Your task to perform on an android device: check android version Image 0: 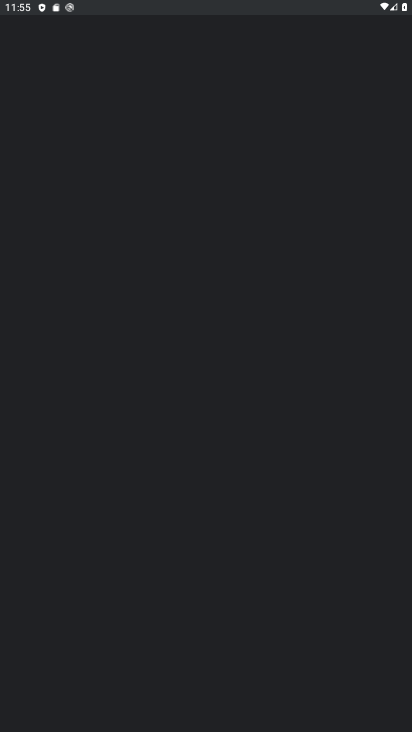
Step 0: drag from (272, 667) to (262, 165)
Your task to perform on an android device: check android version Image 1: 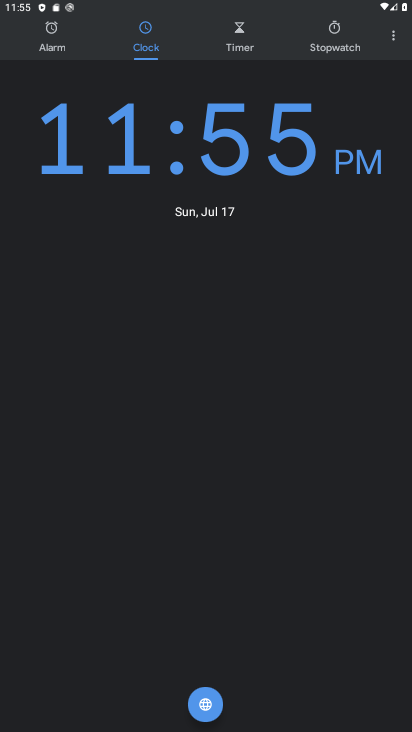
Step 1: press back button
Your task to perform on an android device: check android version Image 2: 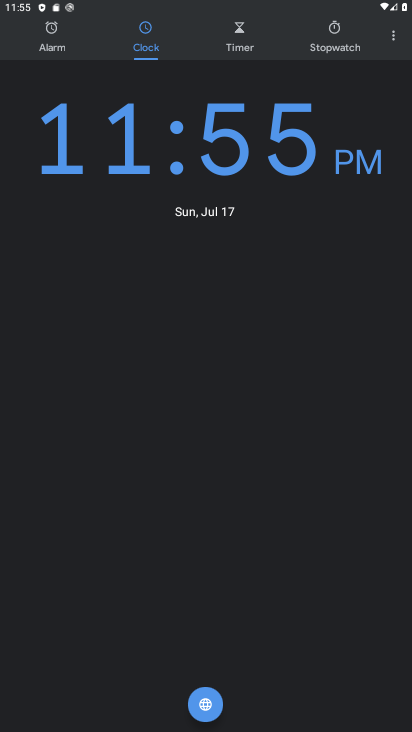
Step 2: press back button
Your task to perform on an android device: check android version Image 3: 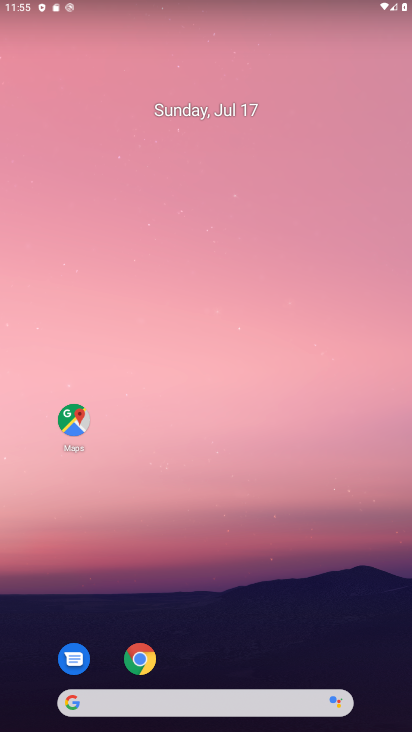
Step 3: drag from (318, 679) to (242, 14)
Your task to perform on an android device: check android version Image 4: 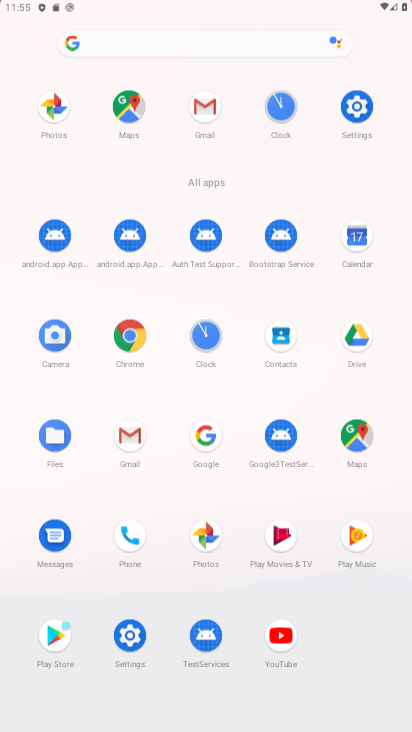
Step 4: drag from (285, 632) to (221, 129)
Your task to perform on an android device: check android version Image 5: 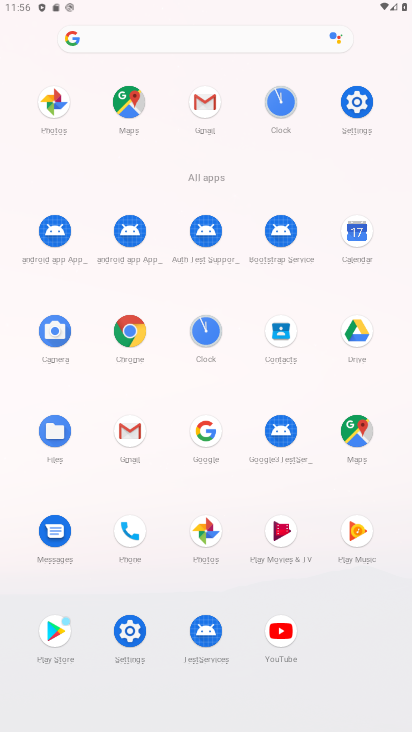
Step 5: click (126, 629)
Your task to perform on an android device: check android version Image 6: 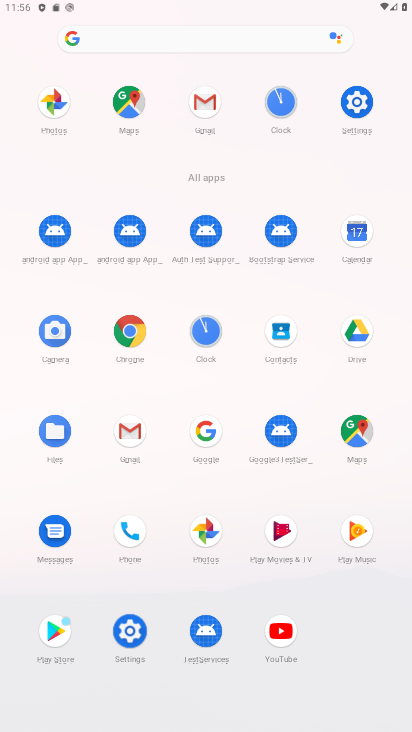
Step 6: click (134, 621)
Your task to perform on an android device: check android version Image 7: 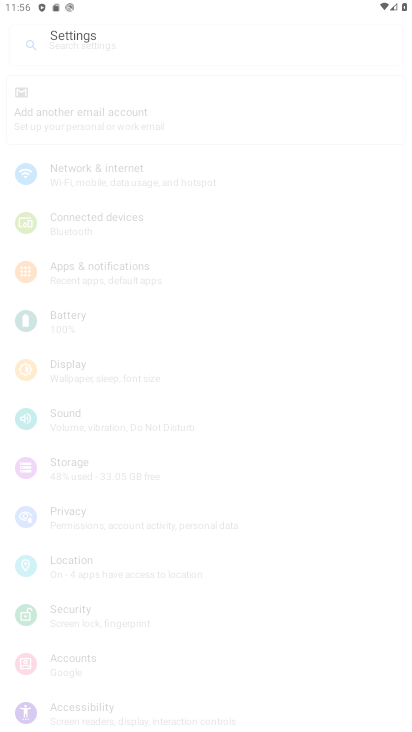
Step 7: click (123, 636)
Your task to perform on an android device: check android version Image 8: 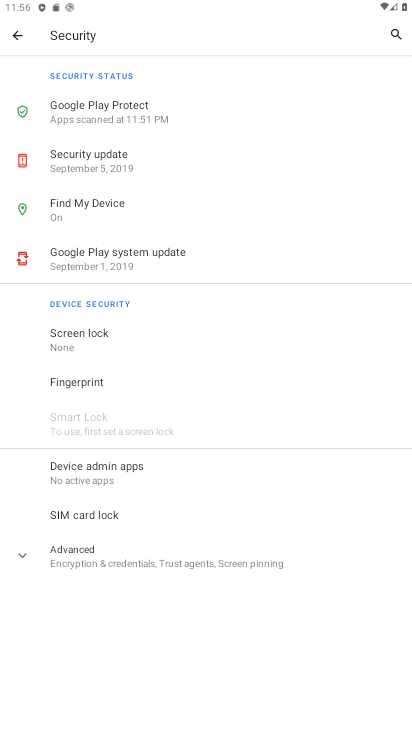
Step 8: click (13, 35)
Your task to perform on an android device: check android version Image 9: 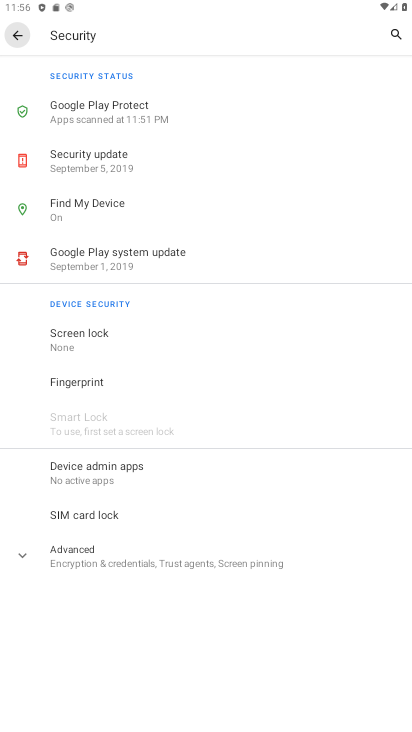
Step 9: click (13, 34)
Your task to perform on an android device: check android version Image 10: 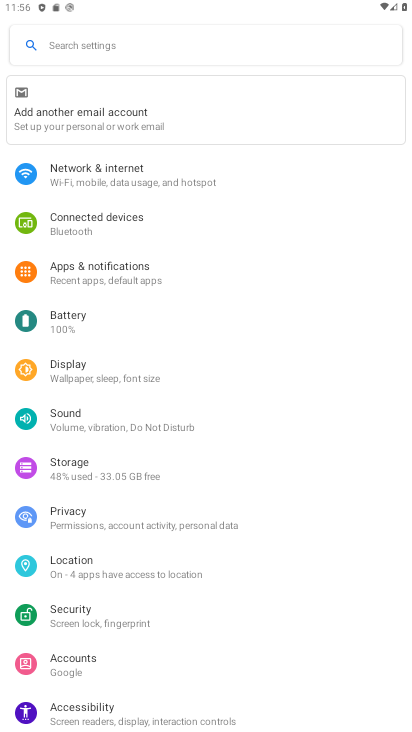
Step 10: drag from (141, 661) to (128, 156)
Your task to perform on an android device: check android version Image 11: 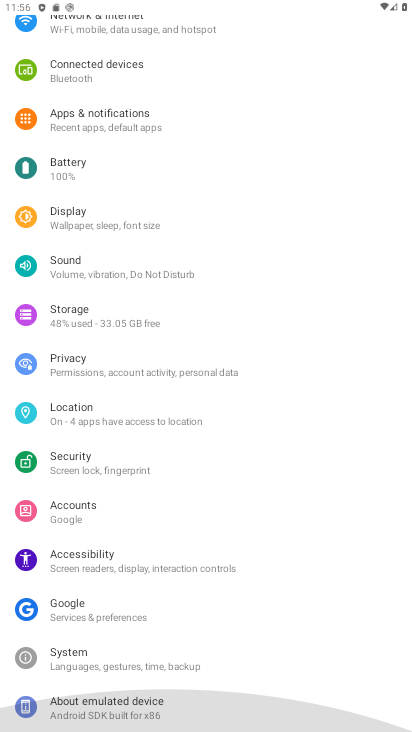
Step 11: drag from (172, 449) to (195, 133)
Your task to perform on an android device: check android version Image 12: 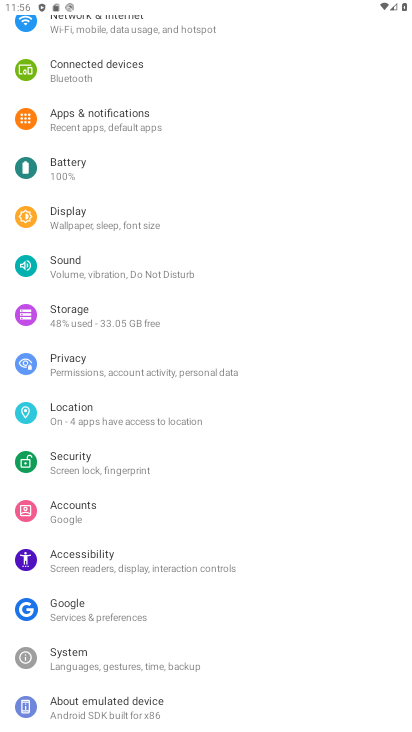
Step 12: drag from (205, 547) to (208, 196)
Your task to perform on an android device: check android version Image 13: 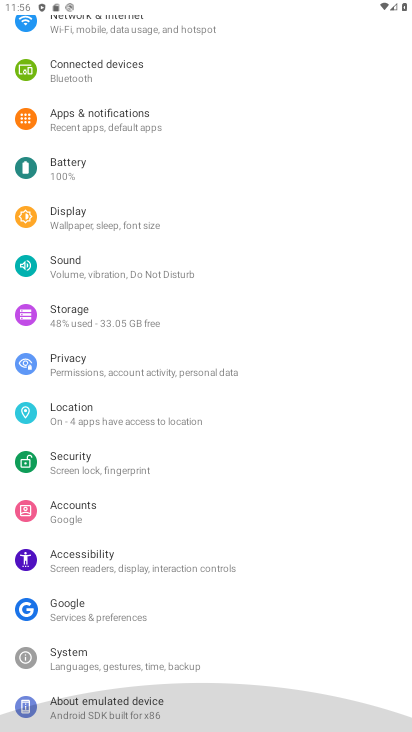
Step 13: drag from (200, 658) to (195, 334)
Your task to perform on an android device: check android version Image 14: 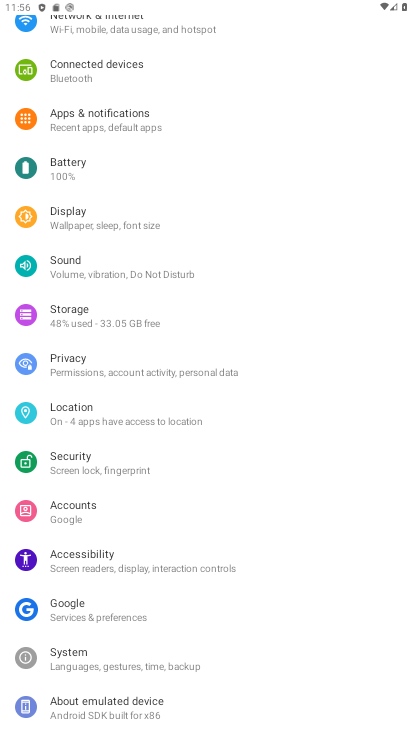
Step 14: click (91, 713)
Your task to perform on an android device: check android version Image 15: 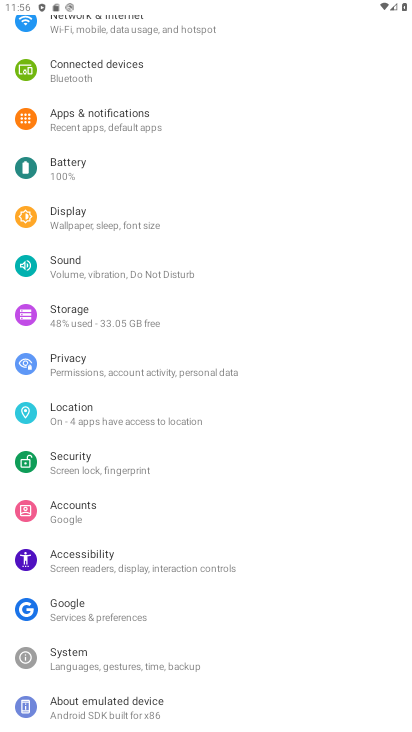
Step 15: click (91, 712)
Your task to perform on an android device: check android version Image 16: 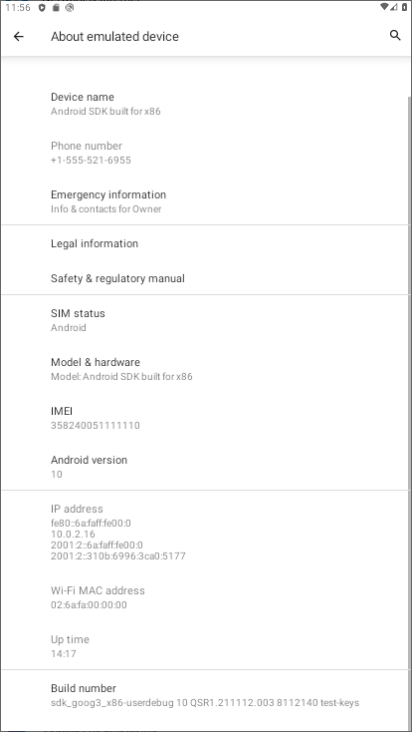
Step 16: click (91, 712)
Your task to perform on an android device: check android version Image 17: 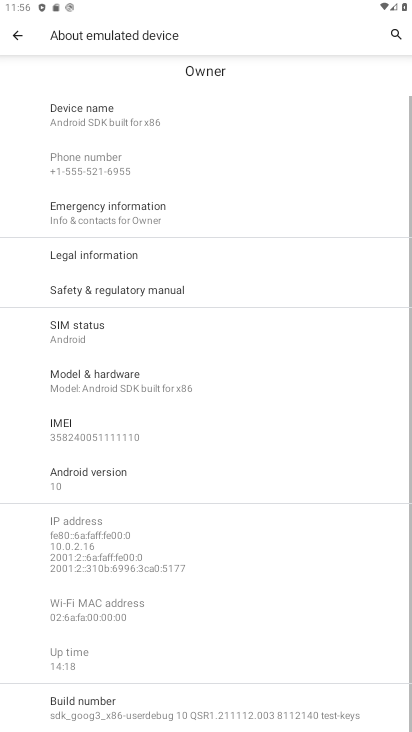
Step 17: task complete